Your task to perform on an android device: open the mobile data screen to see how much data has been used Image 0: 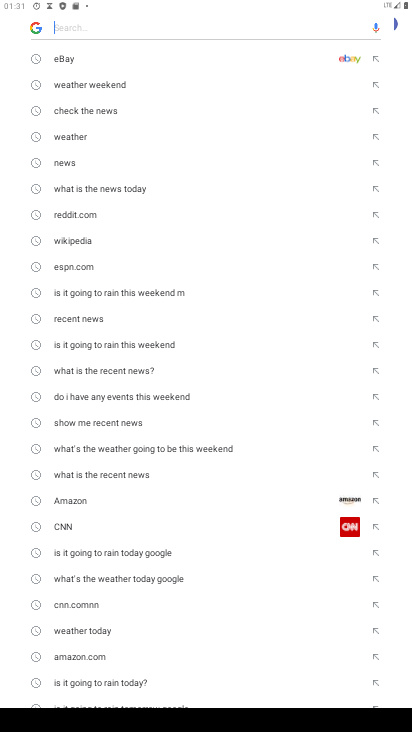
Step 0: press home button
Your task to perform on an android device: open the mobile data screen to see how much data has been used Image 1: 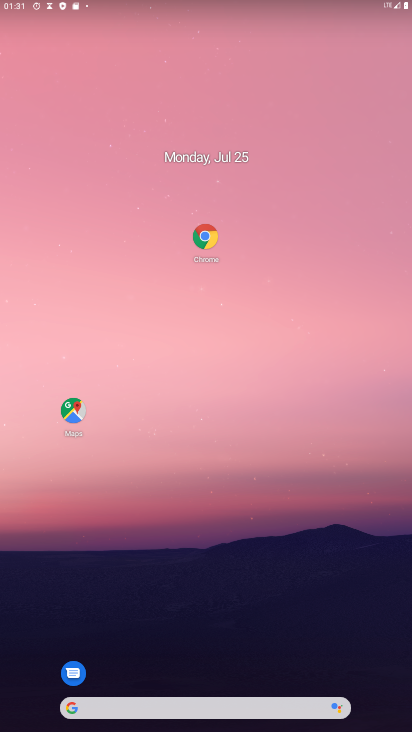
Step 1: drag from (201, 695) to (342, 4)
Your task to perform on an android device: open the mobile data screen to see how much data has been used Image 2: 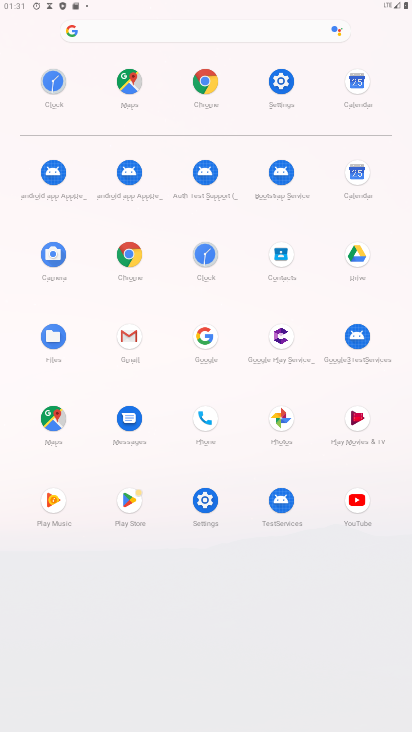
Step 2: click (286, 94)
Your task to perform on an android device: open the mobile data screen to see how much data has been used Image 3: 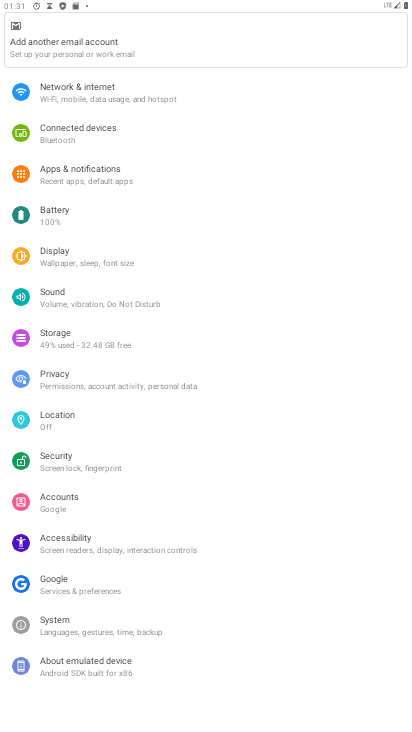
Step 3: click (191, 76)
Your task to perform on an android device: open the mobile data screen to see how much data has been used Image 4: 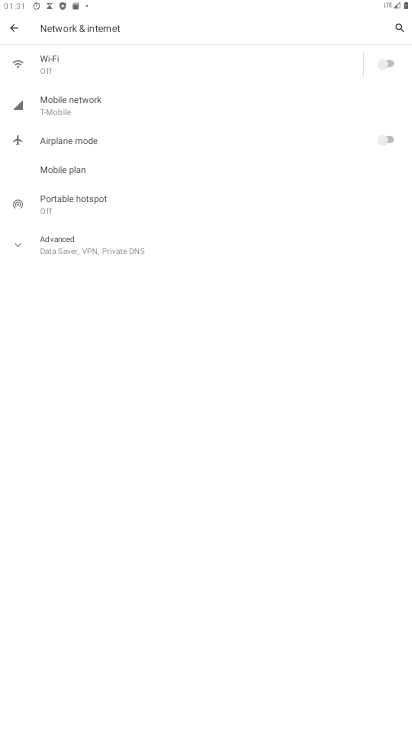
Step 4: click (97, 103)
Your task to perform on an android device: open the mobile data screen to see how much data has been used Image 5: 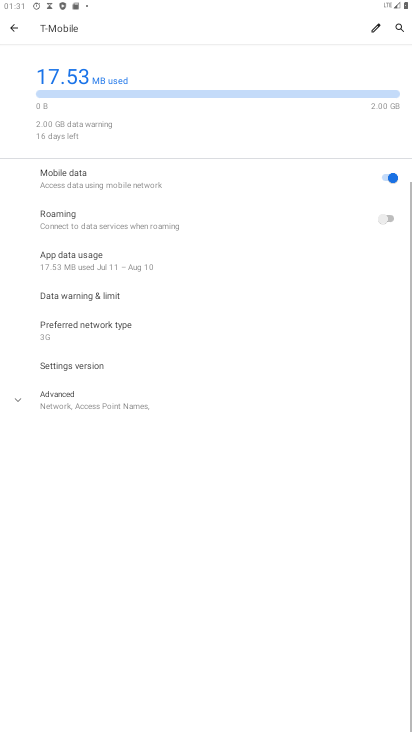
Step 5: task complete